Your task to perform on an android device: Open calendar and show me the first week of next month Image 0: 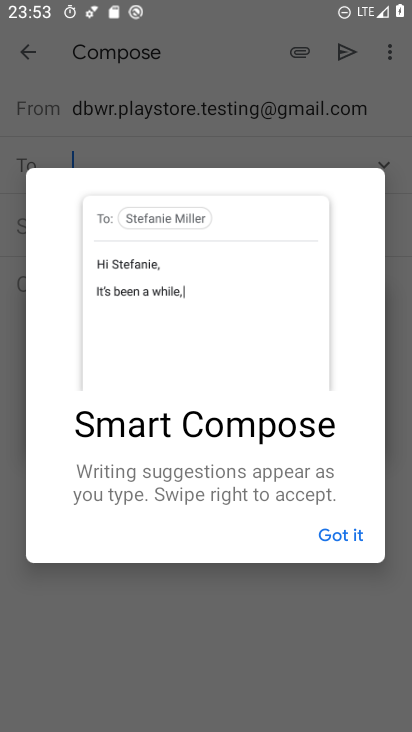
Step 0: press home button
Your task to perform on an android device: Open calendar and show me the first week of next month Image 1: 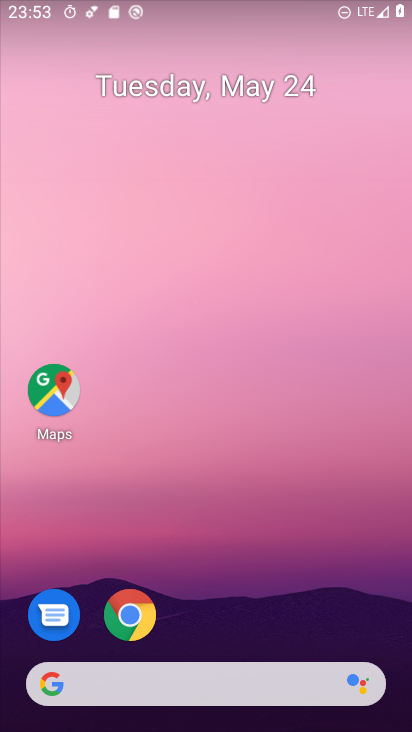
Step 1: drag from (253, 705) to (239, 82)
Your task to perform on an android device: Open calendar and show me the first week of next month Image 2: 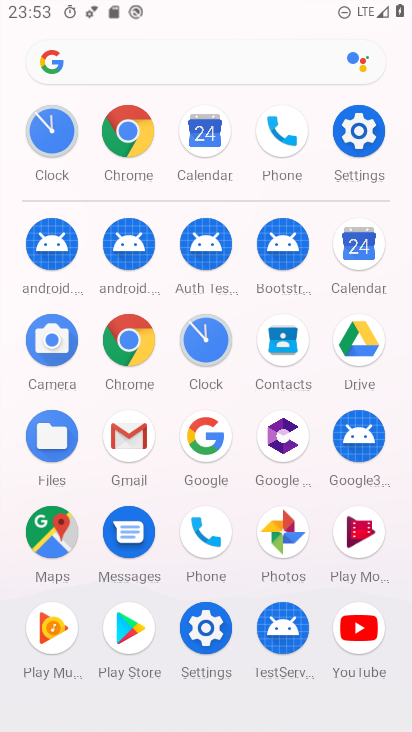
Step 2: click (349, 248)
Your task to perform on an android device: Open calendar and show me the first week of next month Image 3: 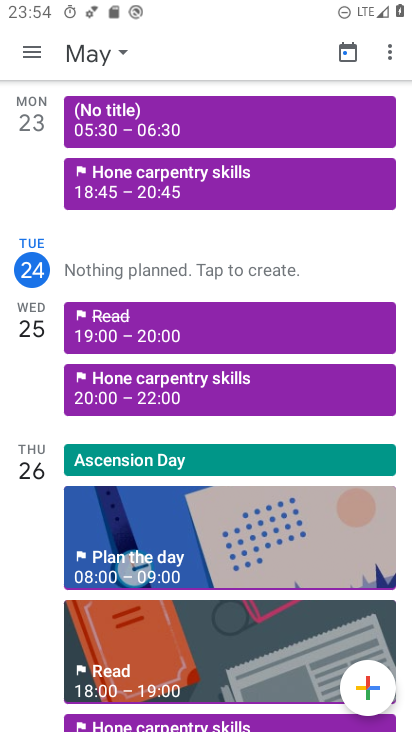
Step 3: click (39, 50)
Your task to perform on an android device: Open calendar and show me the first week of next month Image 4: 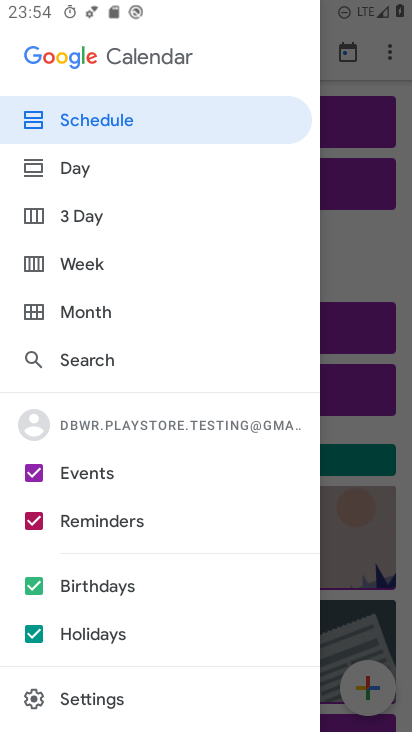
Step 4: click (104, 306)
Your task to perform on an android device: Open calendar and show me the first week of next month Image 5: 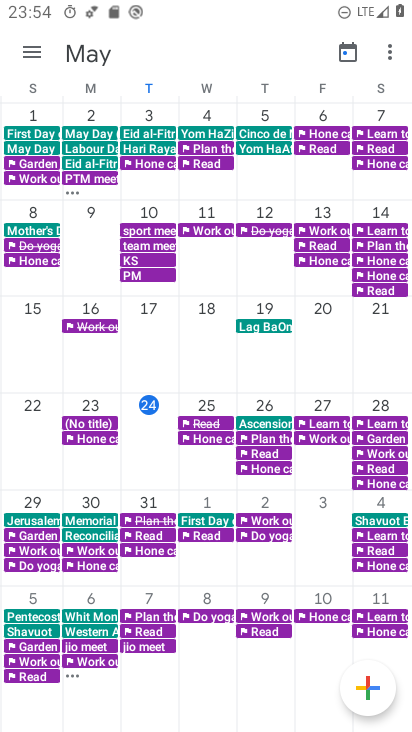
Step 5: drag from (386, 326) to (6, 467)
Your task to perform on an android device: Open calendar and show me the first week of next month Image 6: 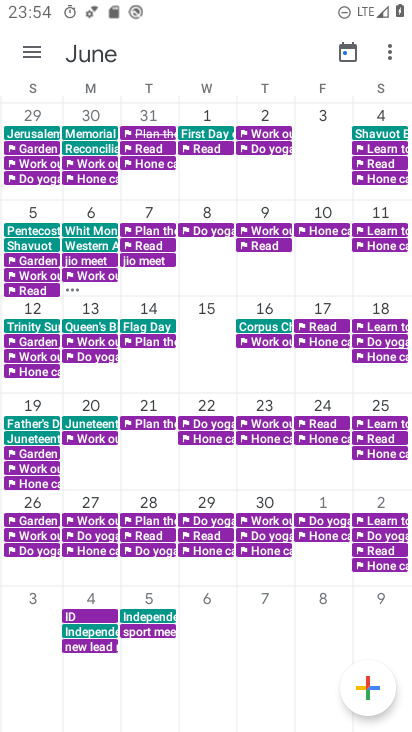
Step 6: click (196, 134)
Your task to perform on an android device: Open calendar and show me the first week of next month Image 7: 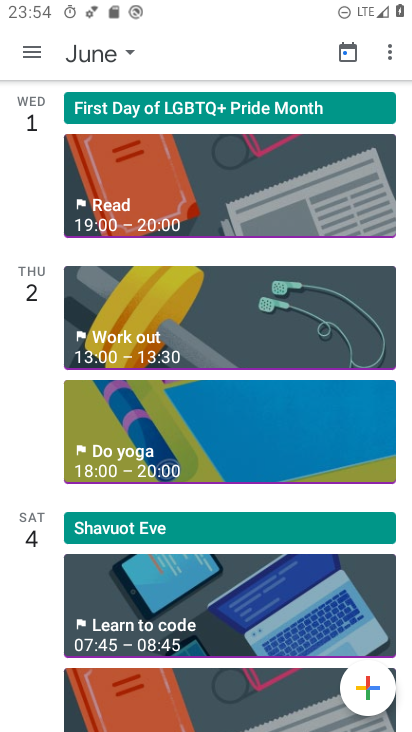
Step 7: task complete